Your task to perform on an android device: When is my next appointment? Image 0: 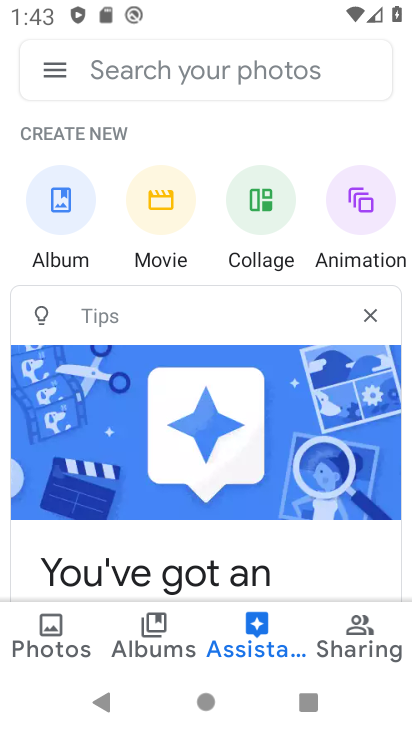
Step 0: press home button
Your task to perform on an android device: When is my next appointment? Image 1: 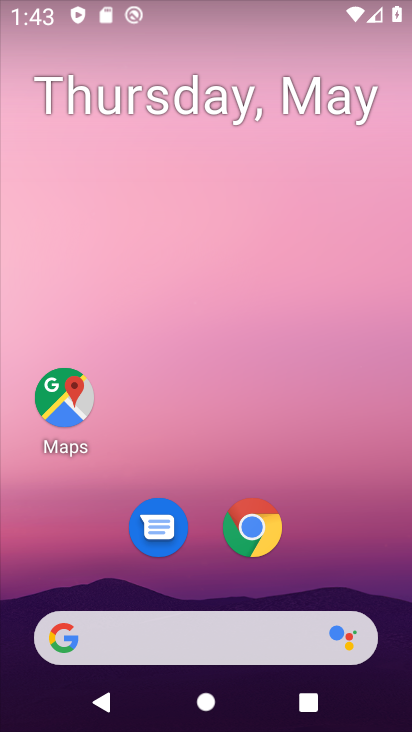
Step 1: drag from (377, 536) to (317, 4)
Your task to perform on an android device: When is my next appointment? Image 2: 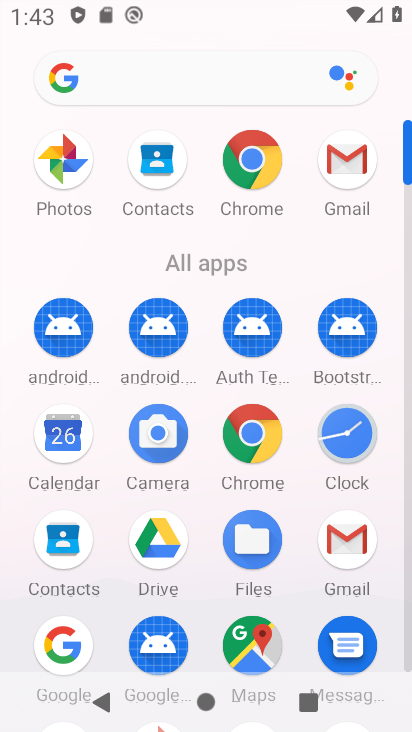
Step 2: click (55, 441)
Your task to perform on an android device: When is my next appointment? Image 3: 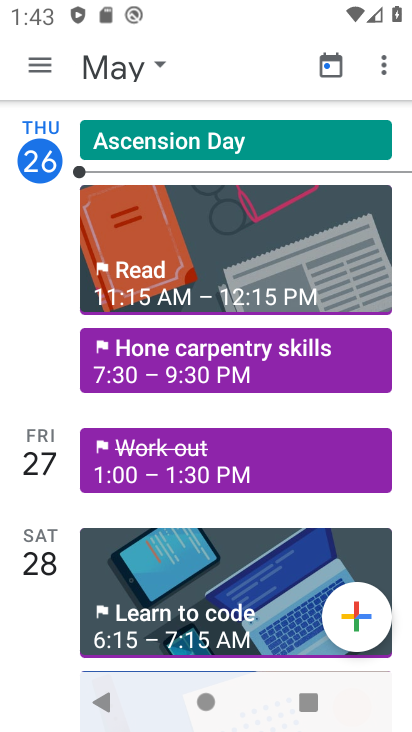
Step 3: click (160, 64)
Your task to perform on an android device: When is my next appointment? Image 4: 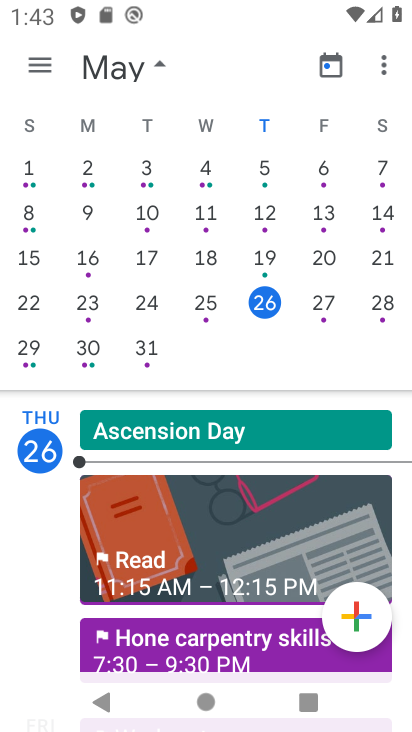
Step 4: click (157, 69)
Your task to perform on an android device: When is my next appointment? Image 5: 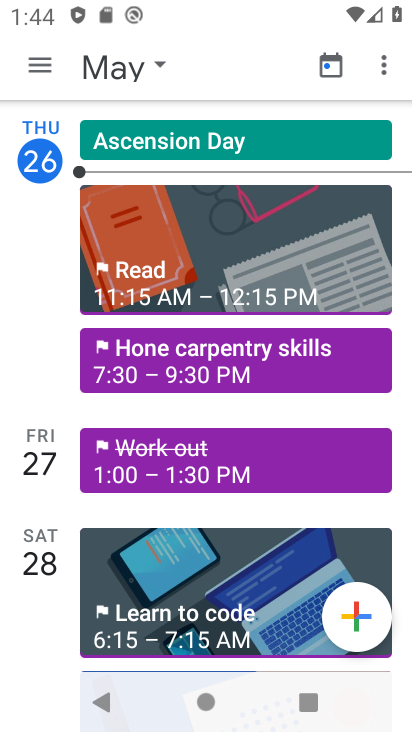
Step 5: task complete